Your task to perform on an android device: Open the phone app and click the voicemail tab. Image 0: 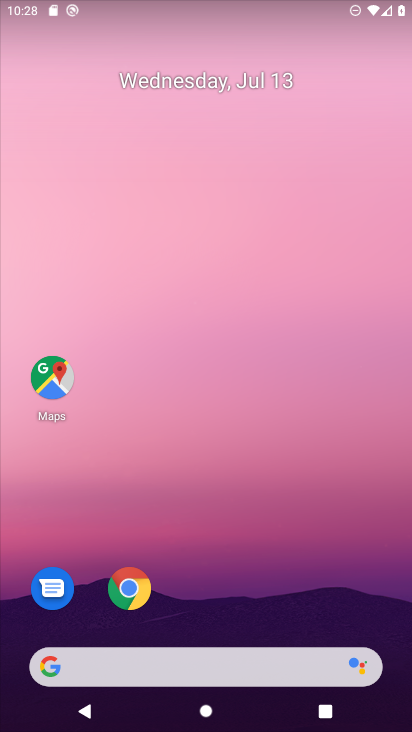
Step 0: drag from (195, 625) to (183, 93)
Your task to perform on an android device: Open the phone app and click the voicemail tab. Image 1: 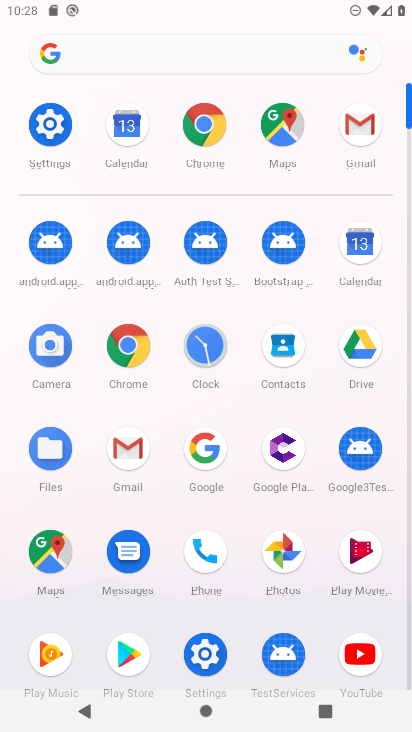
Step 1: click (209, 547)
Your task to perform on an android device: Open the phone app and click the voicemail tab. Image 2: 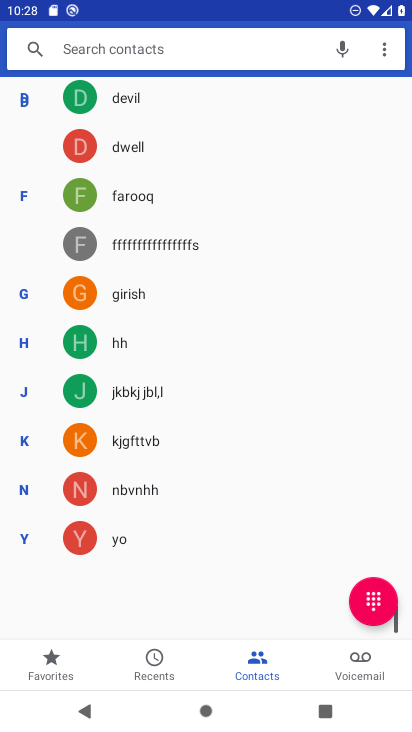
Step 2: click (349, 659)
Your task to perform on an android device: Open the phone app and click the voicemail tab. Image 3: 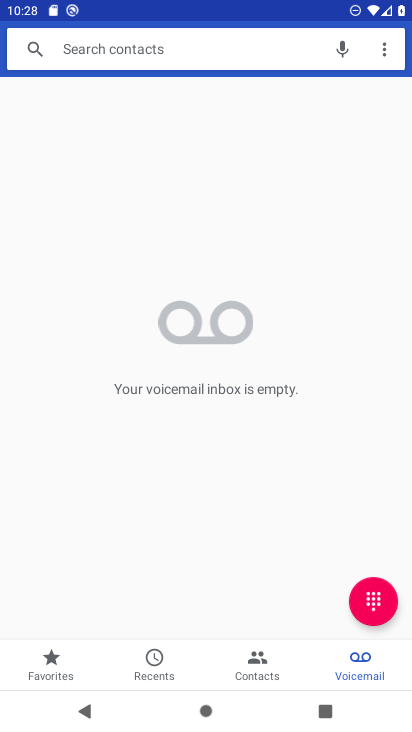
Step 3: task complete